Your task to perform on an android device: open a new tab in the chrome app Image 0: 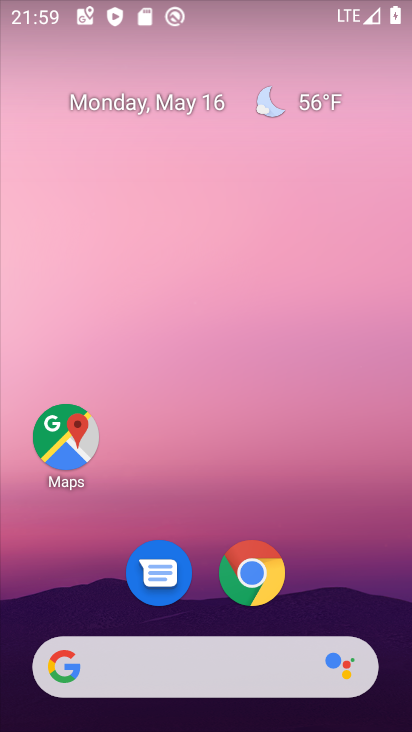
Step 0: click (249, 569)
Your task to perform on an android device: open a new tab in the chrome app Image 1: 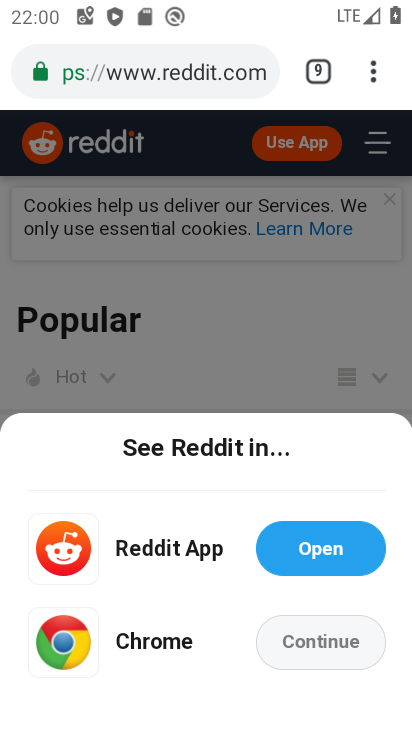
Step 1: click (372, 78)
Your task to perform on an android device: open a new tab in the chrome app Image 2: 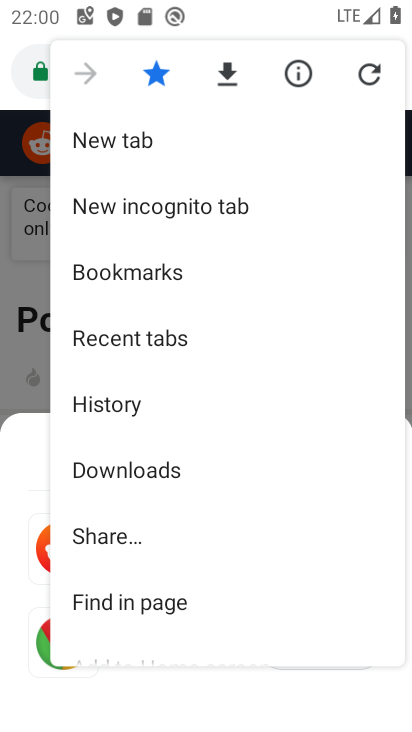
Step 2: click (118, 136)
Your task to perform on an android device: open a new tab in the chrome app Image 3: 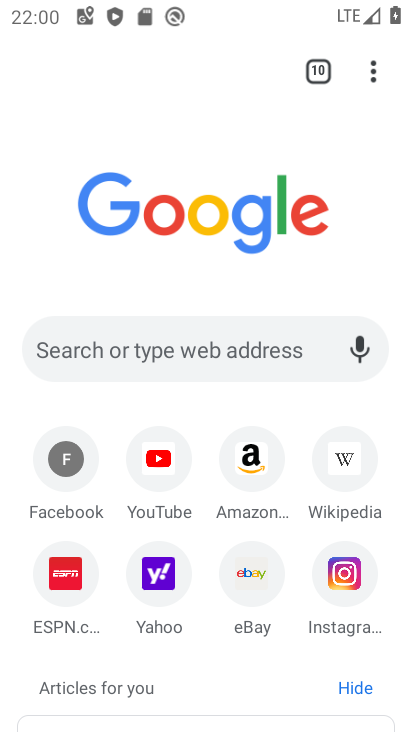
Step 3: task complete